Your task to perform on an android device: stop showing notifications on the lock screen Image 0: 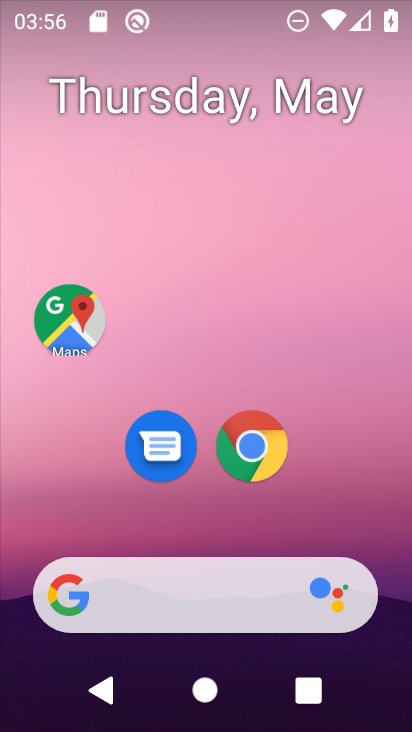
Step 0: drag from (344, 547) to (272, 16)
Your task to perform on an android device: stop showing notifications on the lock screen Image 1: 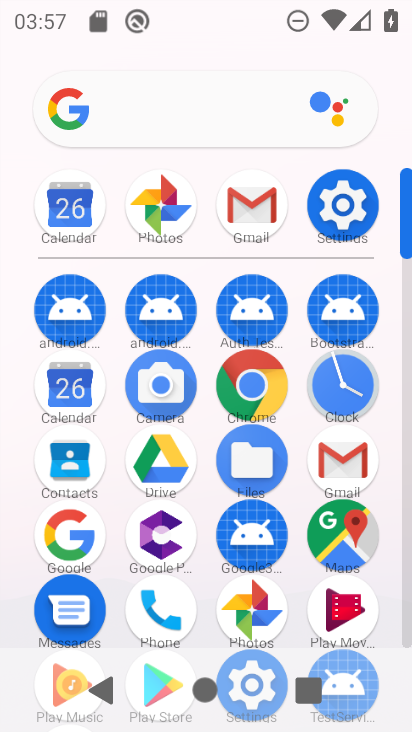
Step 1: click (340, 212)
Your task to perform on an android device: stop showing notifications on the lock screen Image 2: 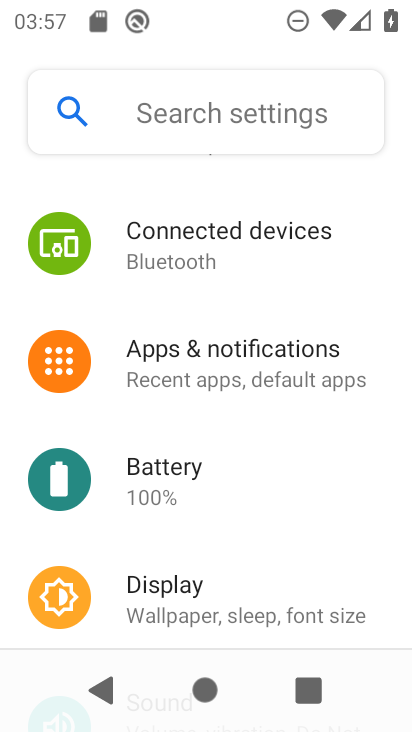
Step 2: click (218, 371)
Your task to perform on an android device: stop showing notifications on the lock screen Image 3: 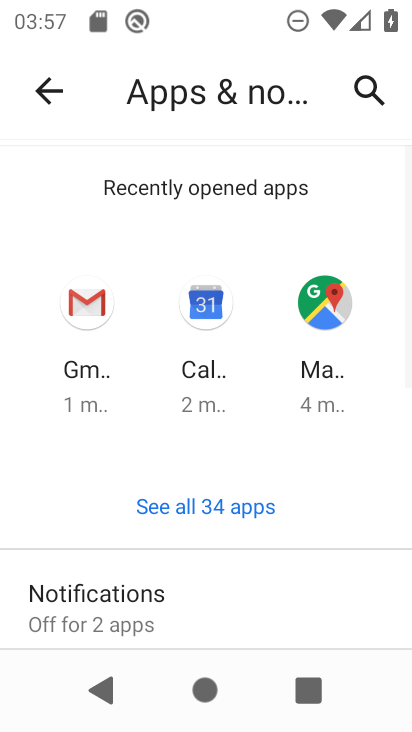
Step 3: drag from (302, 502) to (250, 188)
Your task to perform on an android device: stop showing notifications on the lock screen Image 4: 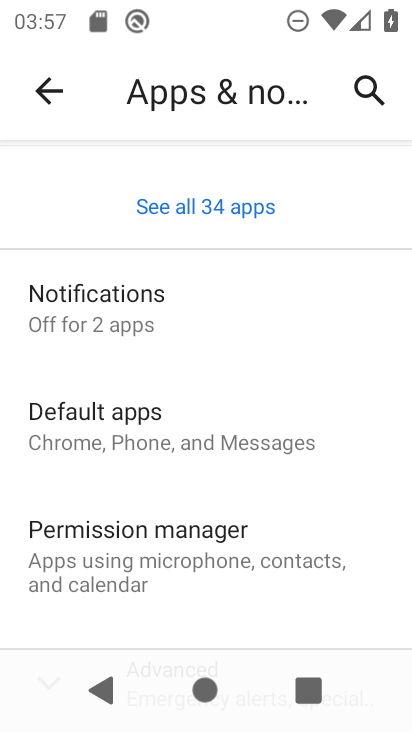
Step 4: click (84, 314)
Your task to perform on an android device: stop showing notifications on the lock screen Image 5: 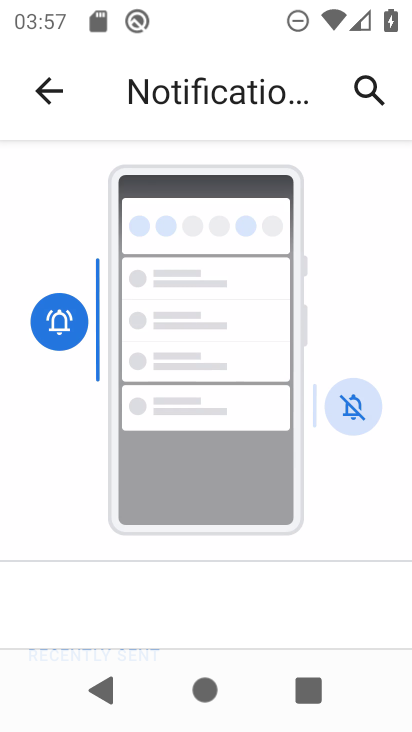
Step 5: drag from (198, 587) to (163, 195)
Your task to perform on an android device: stop showing notifications on the lock screen Image 6: 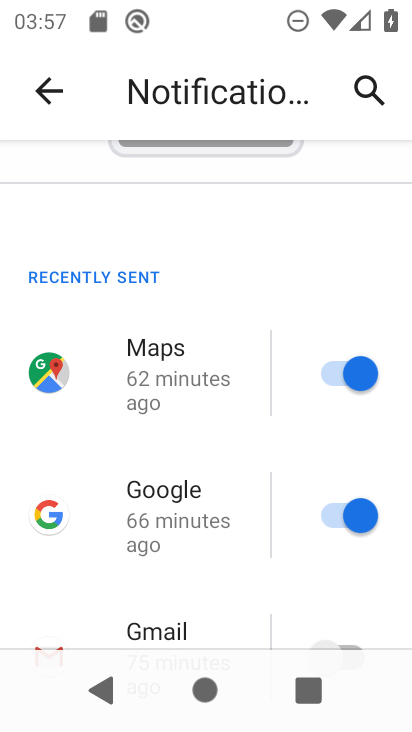
Step 6: drag from (146, 470) to (154, 132)
Your task to perform on an android device: stop showing notifications on the lock screen Image 7: 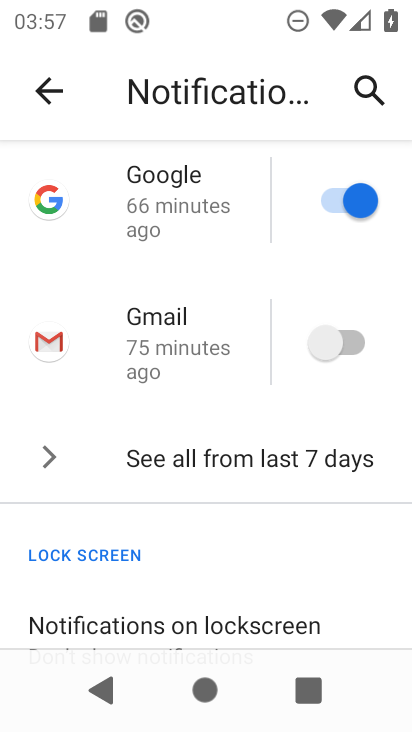
Step 7: drag from (187, 518) to (166, 150)
Your task to perform on an android device: stop showing notifications on the lock screen Image 8: 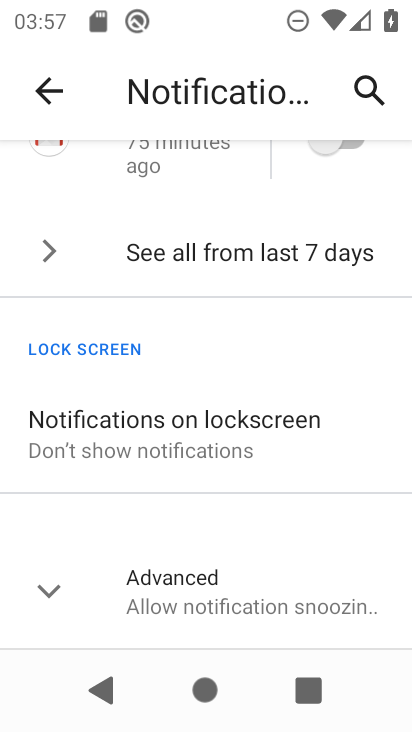
Step 8: click (110, 439)
Your task to perform on an android device: stop showing notifications on the lock screen Image 9: 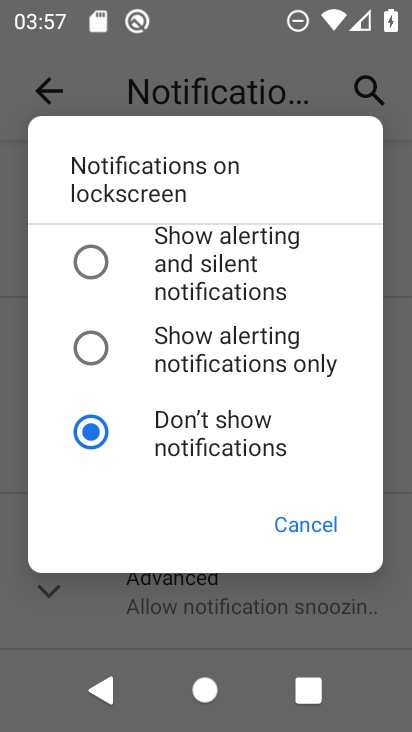
Step 9: task complete